Your task to perform on an android device: turn on notifications settings in the gmail app Image 0: 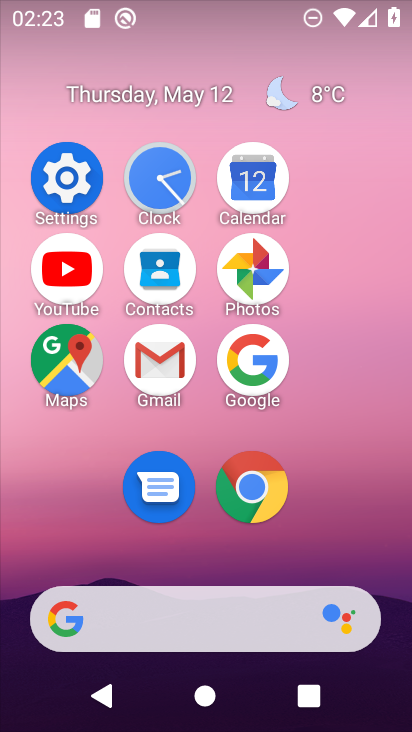
Step 0: click (176, 346)
Your task to perform on an android device: turn on notifications settings in the gmail app Image 1: 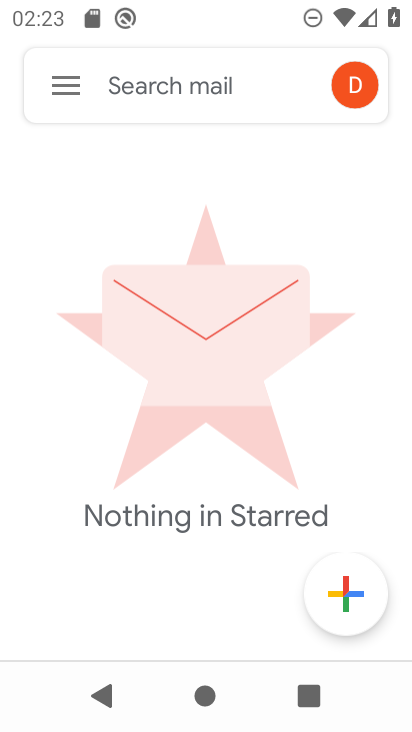
Step 1: click (71, 87)
Your task to perform on an android device: turn on notifications settings in the gmail app Image 2: 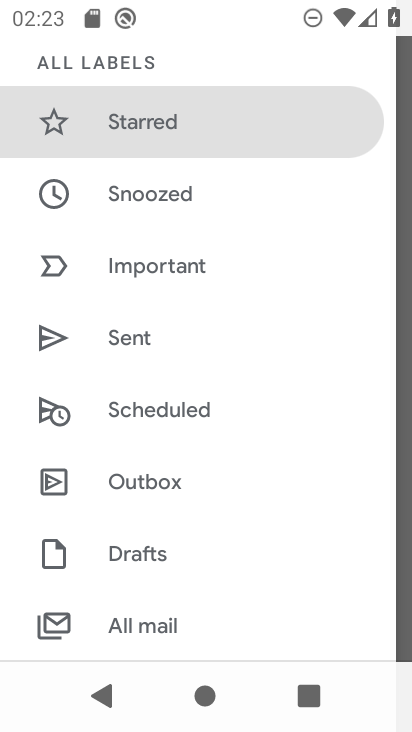
Step 2: drag from (260, 572) to (221, 186)
Your task to perform on an android device: turn on notifications settings in the gmail app Image 3: 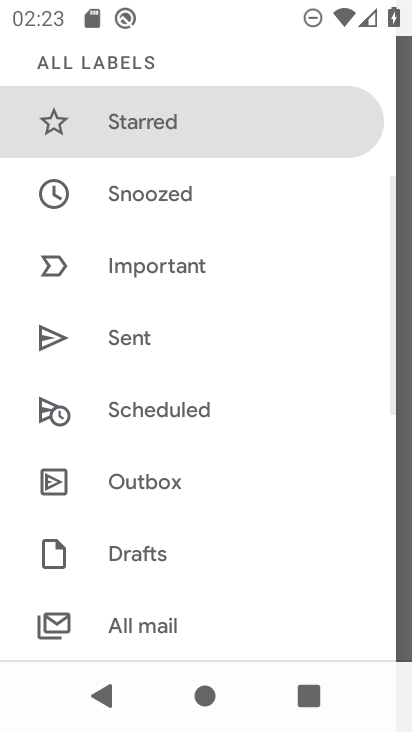
Step 3: drag from (226, 591) to (237, 145)
Your task to perform on an android device: turn on notifications settings in the gmail app Image 4: 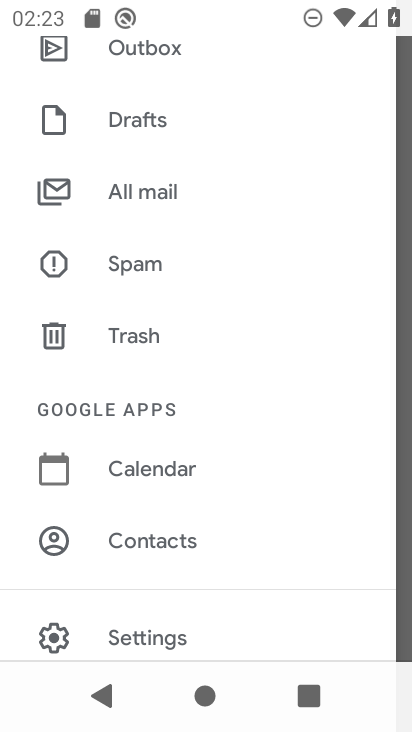
Step 4: drag from (264, 547) to (236, 204)
Your task to perform on an android device: turn on notifications settings in the gmail app Image 5: 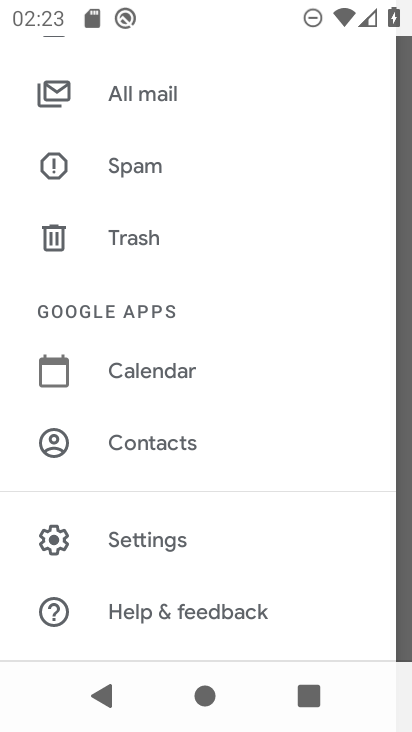
Step 5: click (208, 570)
Your task to perform on an android device: turn on notifications settings in the gmail app Image 6: 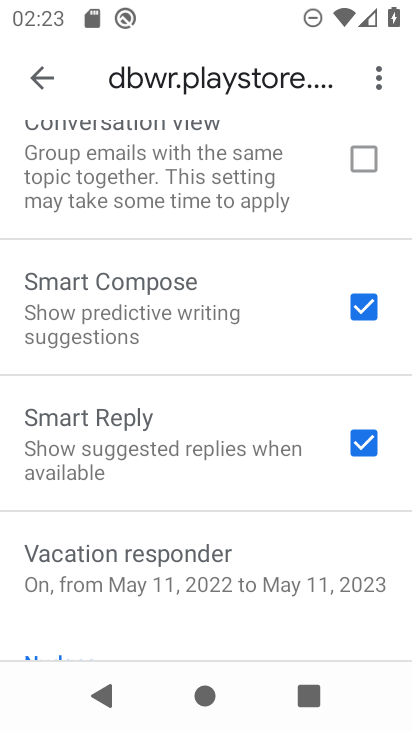
Step 6: drag from (200, 515) to (218, 136)
Your task to perform on an android device: turn on notifications settings in the gmail app Image 7: 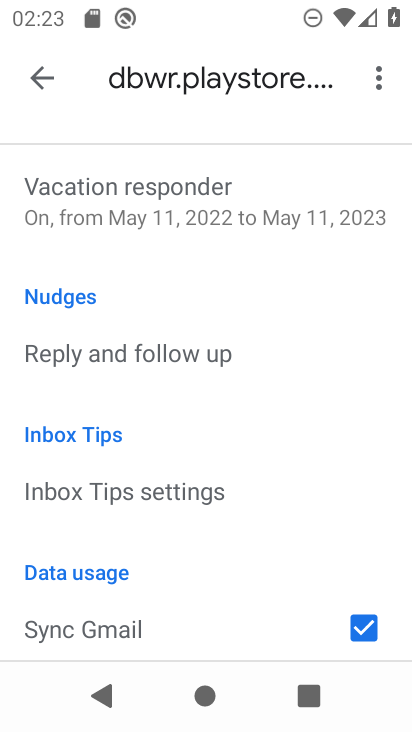
Step 7: drag from (245, 554) to (203, 228)
Your task to perform on an android device: turn on notifications settings in the gmail app Image 8: 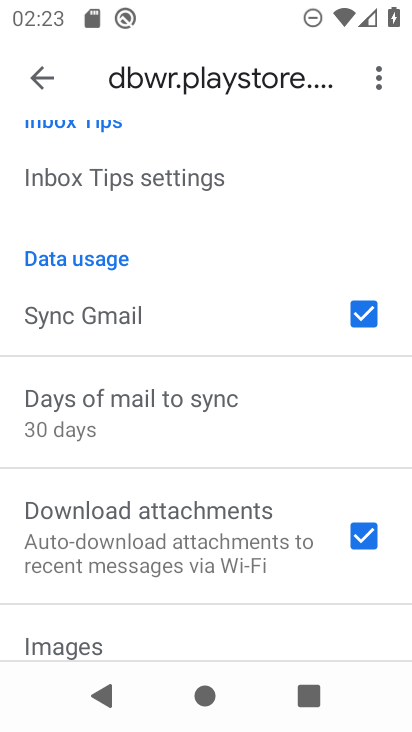
Step 8: drag from (220, 561) to (182, 223)
Your task to perform on an android device: turn on notifications settings in the gmail app Image 9: 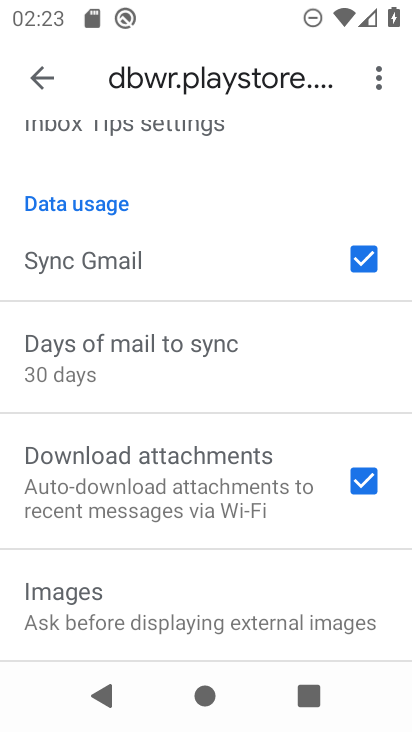
Step 9: drag from (209, 592) to (222, 219)
Your task to perform on an android device: turn on notifications settings in the gmail app Image 10: 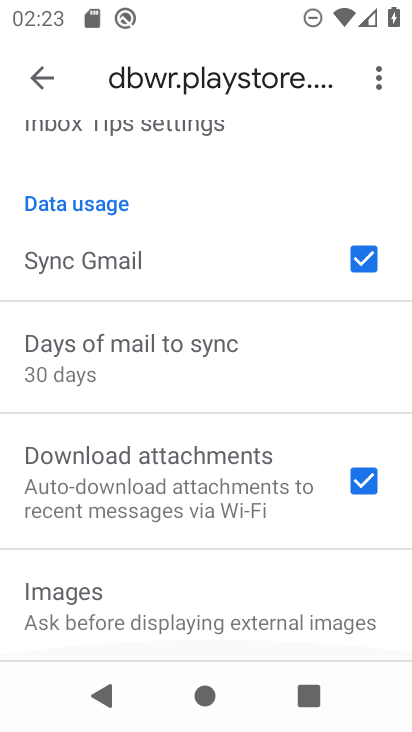
Step 10: drag from (242, 175) to (266, 630)
Your task to perform on an android device: turn on notifications settings in the gmail app Image 11: 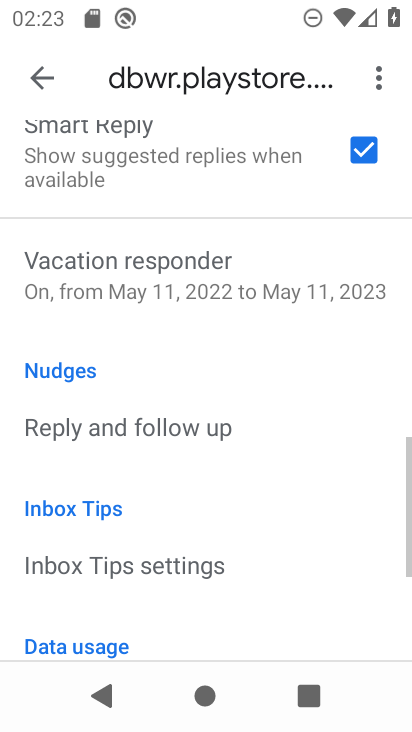
Step 11: drag from (231, 222) to (308, 663)
Your task to perform on an android device: turn on notifications settings in the gmail app Image 12: 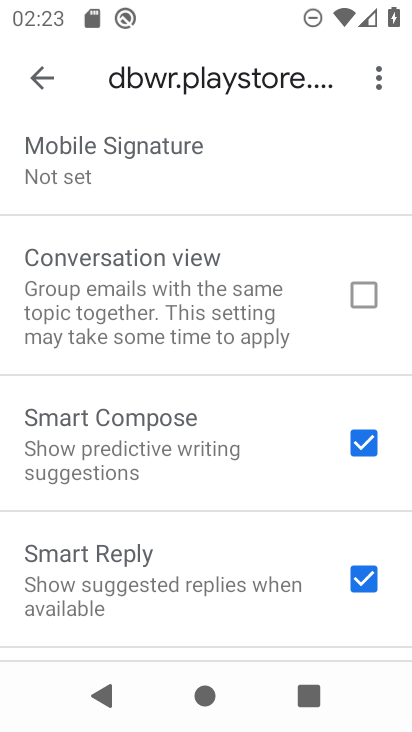
Step 12: drag from (218, 184) to (284, 603)
Your task to perform on an android device: turn on notifications settings in the gmail app Image 13: 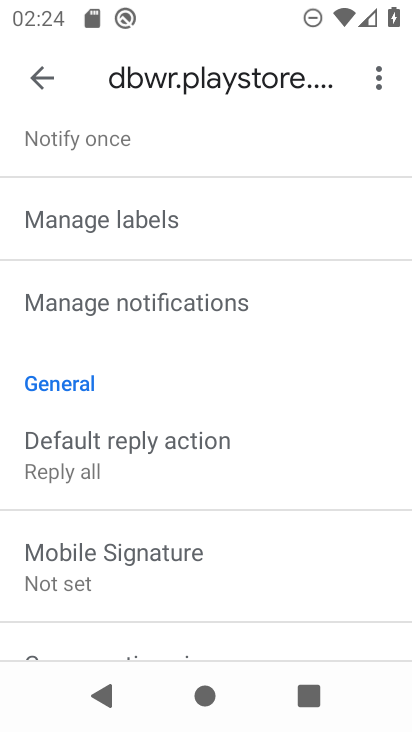
Step 13: click (183, 305)
Your task to perform on an android device: turn on notifications settings in the gmail app Image 14: 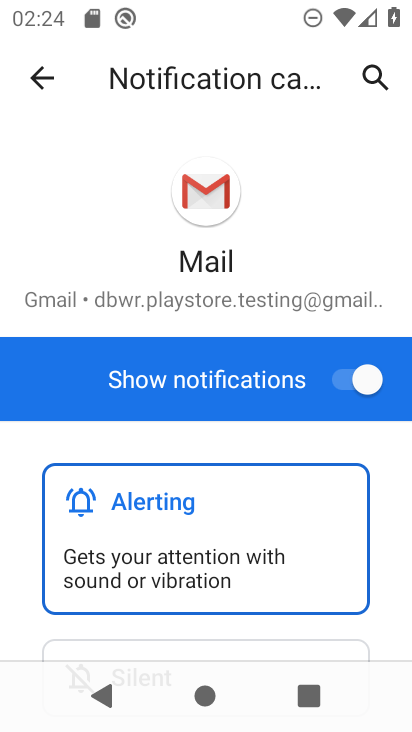
Step 14: task complete